Your task to perform on an android device: snooze an email in the gmail app Image 0: 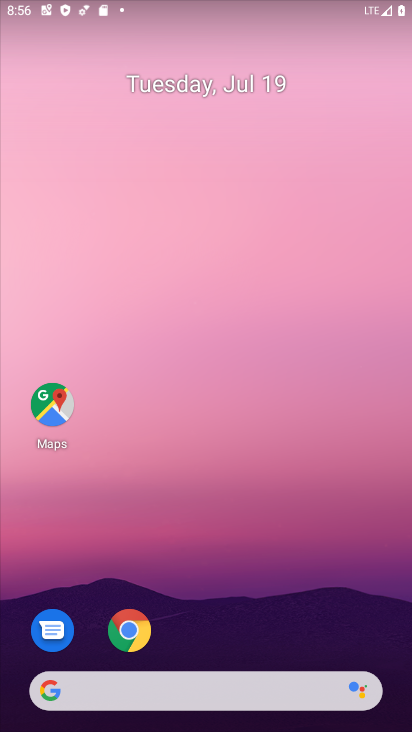
Step 0: drag from (213, 641) to (222, 101)
Your task to perform on an android device: snooze an email in the gmail app Image 1: 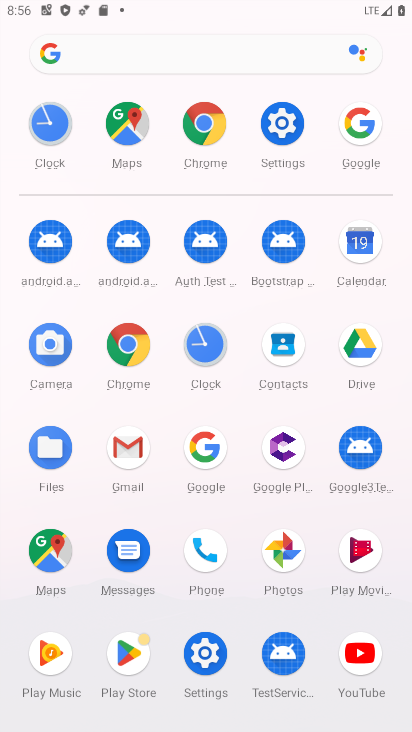
Step 1: click (127, 455)
Your task to perform on an android device: snooze an email in the gmail app Image 2: 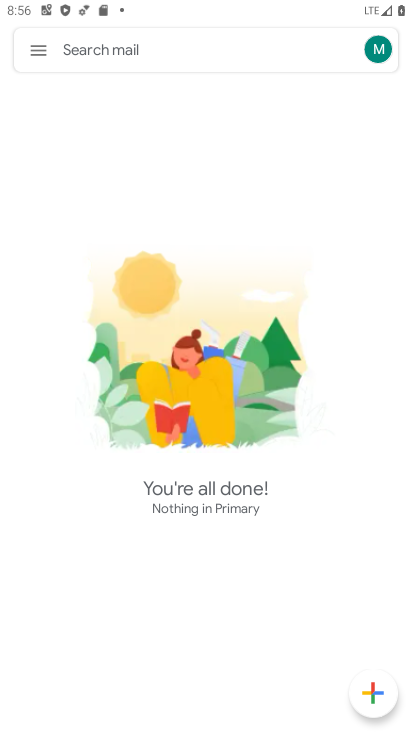
Step 2: click (35, 53)
Your task to perform on an android device: snooze an email in the gmail app Image 3: 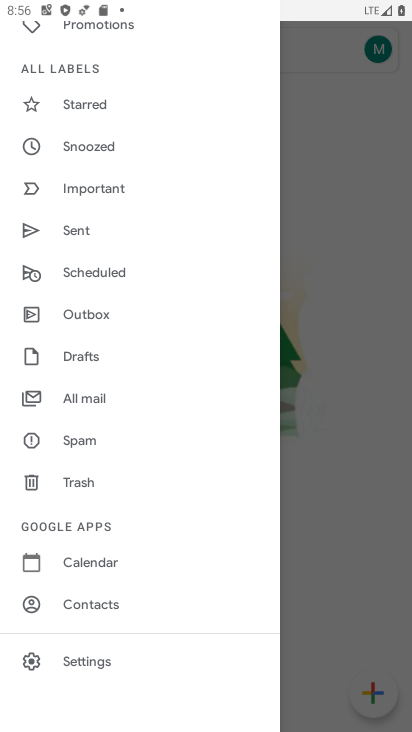
Step 3: click (71, 392)
Your task to perform on an android device: snooze an email in the gmail app Image 4: 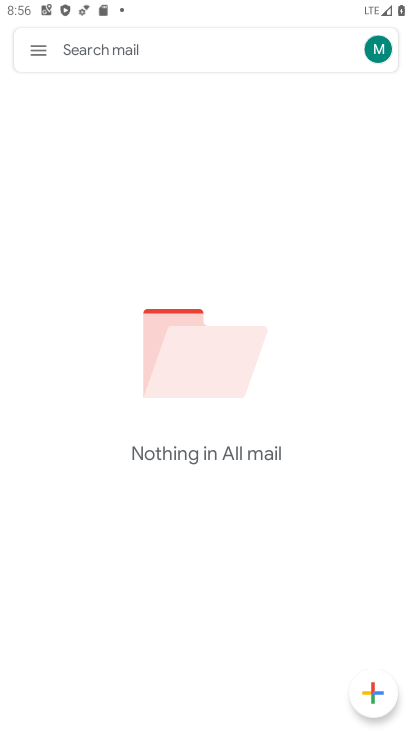
Step 4: task complete